Your task to perform on an android device: Is it going to rain today? Image 0: 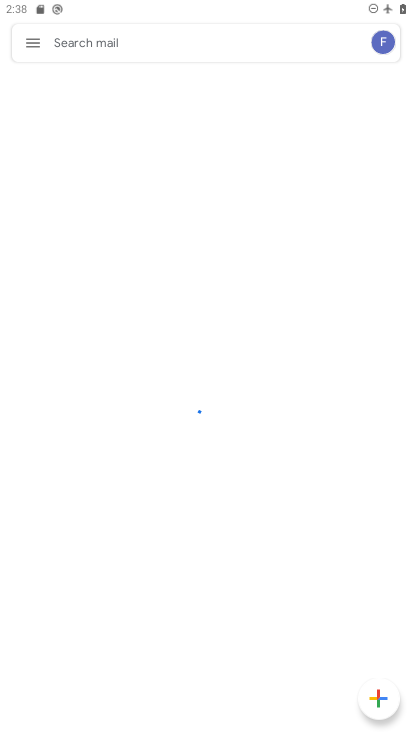
Step 0: press home button
Your task to perform on an android device: Is it going to rain today? Image 1: 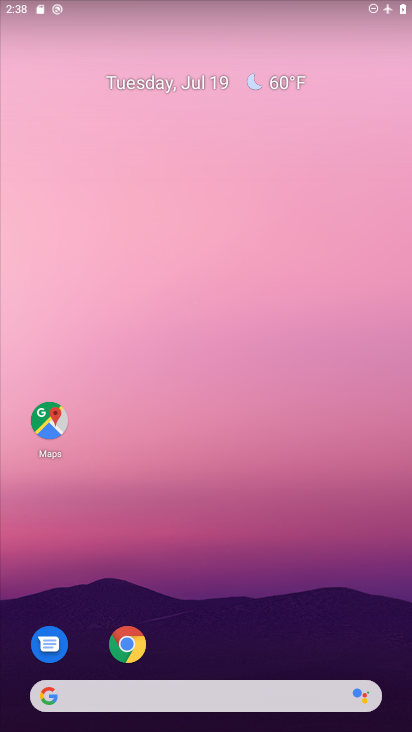
Step 1: drag from (201, 660) to (175, 173)
Your task to perform on an android device: Is it going to rain today? Image 2: 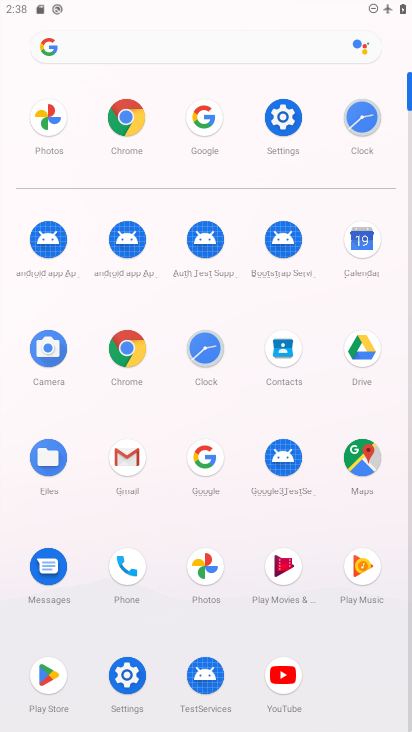
Step 2: click (212, 453)
Your task to perform on an android device: Is it going to rain today? Image 3: 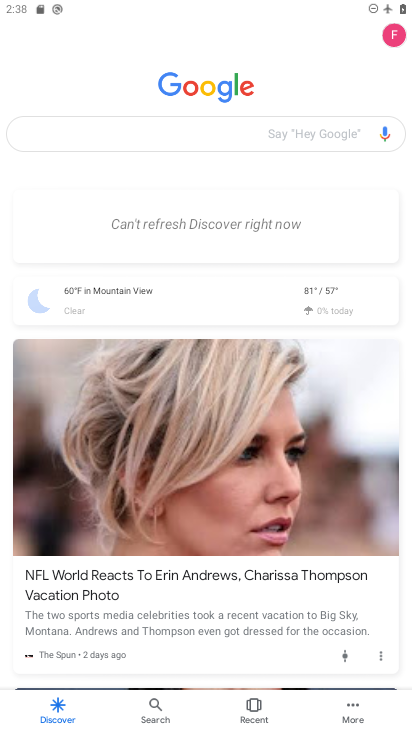
Step 3: click (100, 142)
Your task to perform on an android device: Is it going to rain today? Image 4: 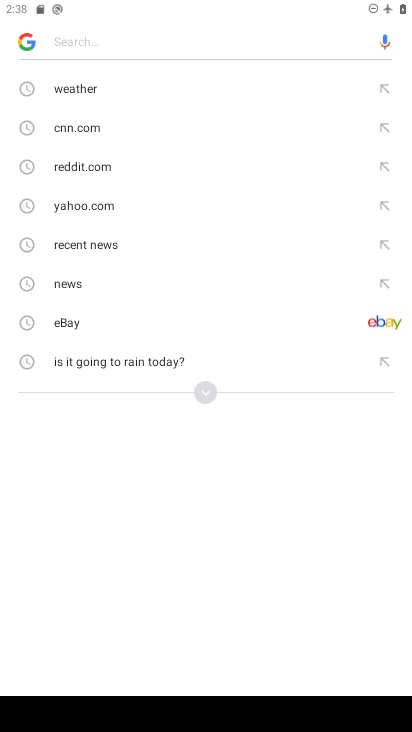
Step 4: click (81, 89)
Your task to perform on an android device: Is it going to rain today? Image 5: 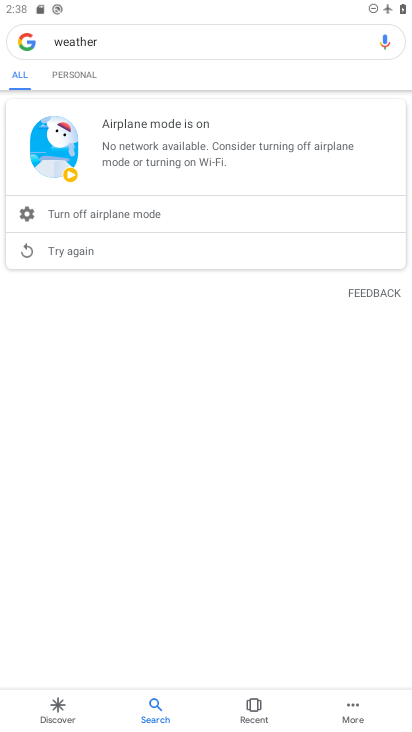
Step 5: task complete